Your task to perform on an android device: turn on improve location accuracy Image 0: 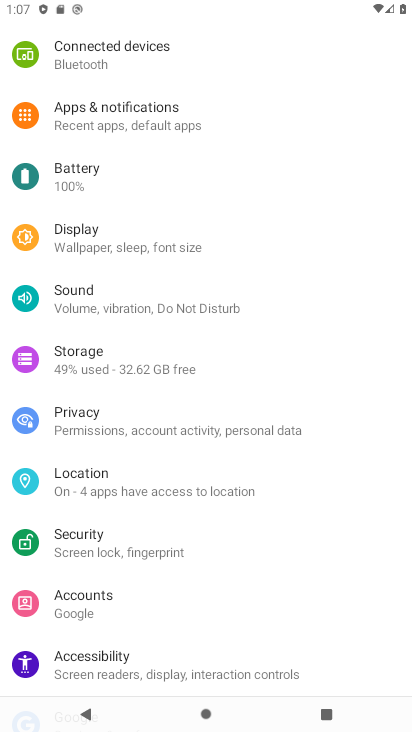
Step 0: press home button
Your task to perform on an android device: turn on improve location accuracy Image 1: 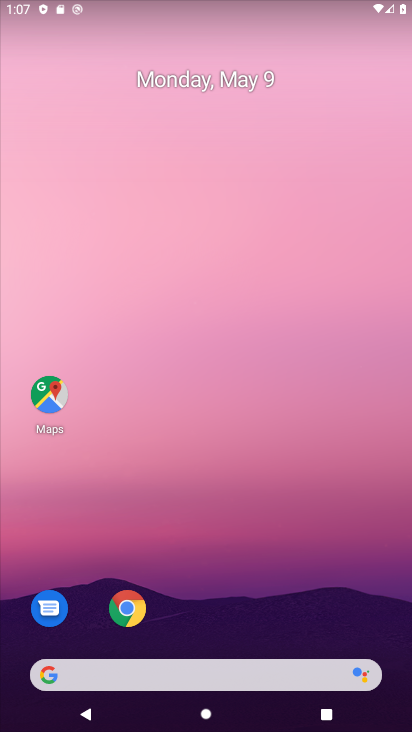
Step 1: drag from (214, 564) to (238, 126)
Your task to perform on an android device: turn on improve location accuracy Image 2: 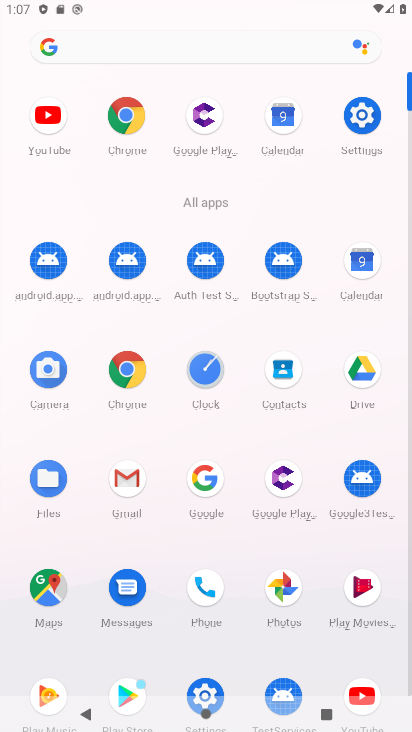
Step 2: click (361, 126)
Your task to perform on an android device: turn on improve location accuracy Image 3: 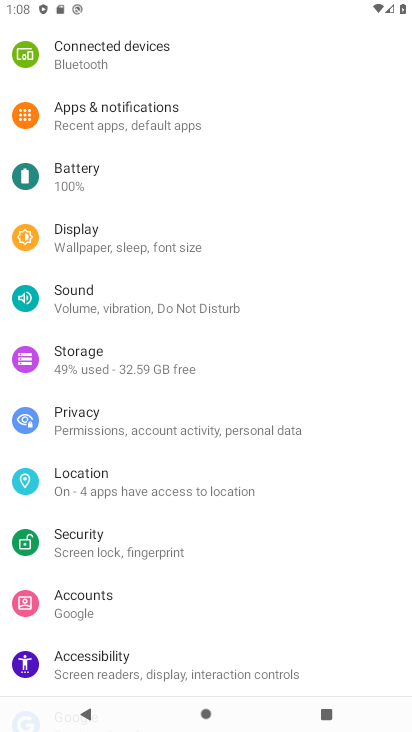
Step 3: click (113, 488)
Your task to perform on an android device: turn on improve location accuracy Image 4: 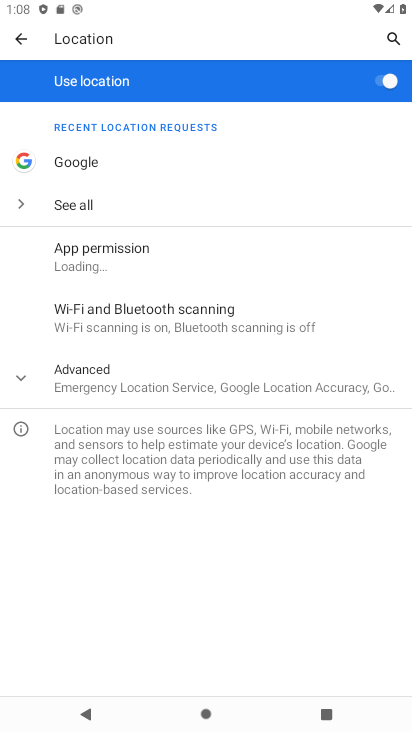
Step 4: click (147, 381)
Your task to perform on an android device: turn on improve location accuracy Image 5: 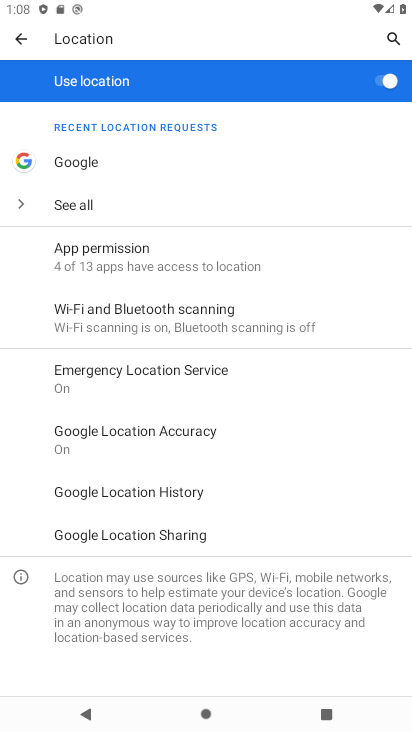
Step 5: click (126, 447)
Your task to perform on an android device: turn on improve location accuracy Image 6: 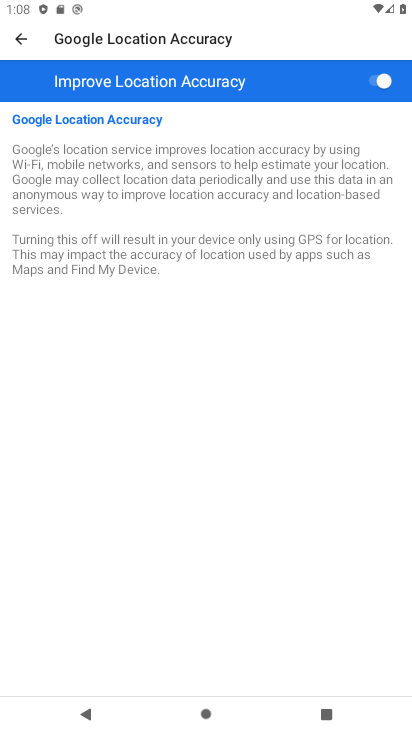
Step 6: task complete